Your task to perform on an android device: Open Google Maps Image 0: 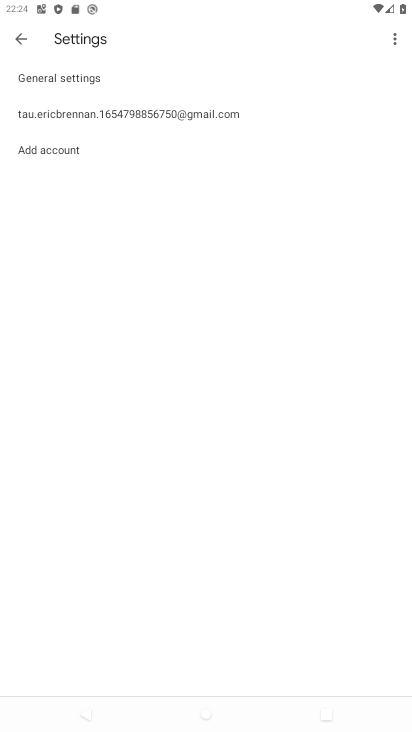
Step 0: press home button
Your task to perform on an android device: Open Google Maps Image 1: 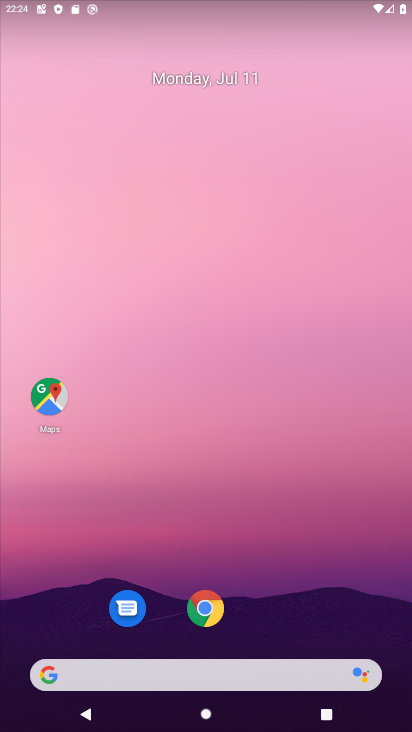
Step 1: click (63, 399)
Your task to perform on an android device: Open Google Maps Image 2: 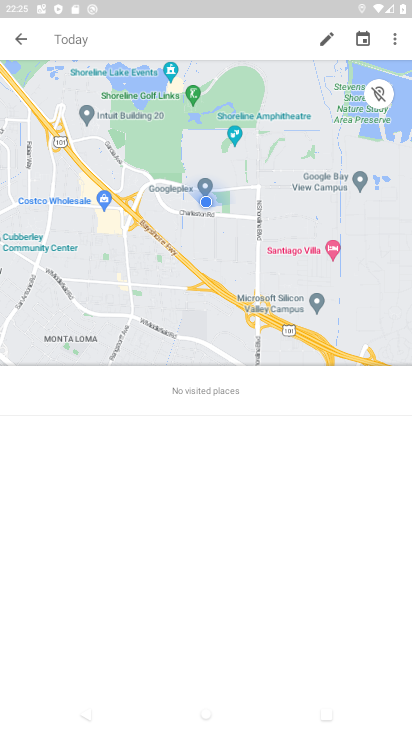
Step 2: task complete